Your task to perform on an android device: Toggle the flashlight Image 0: 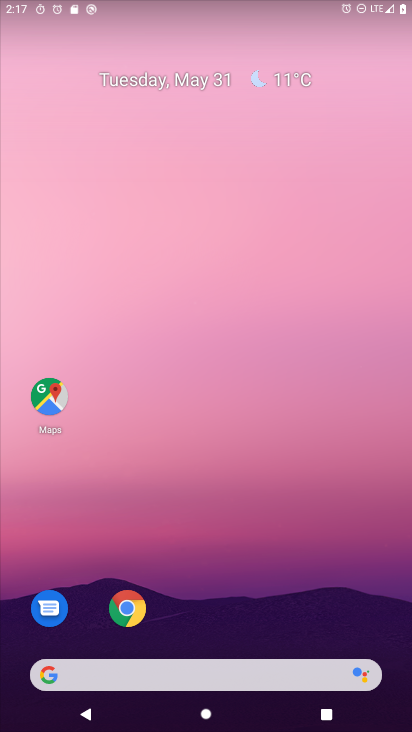
Step 0: drag from (213, 1) to (214, 670)
Your task to perform on an android device: Toggle the flashlight Image 1: 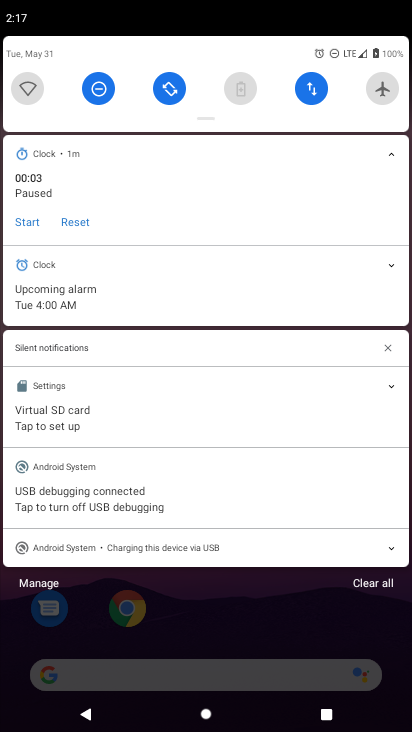
Step 1: task complete